Your task to perform on an android device: Open the web browser Image 0: 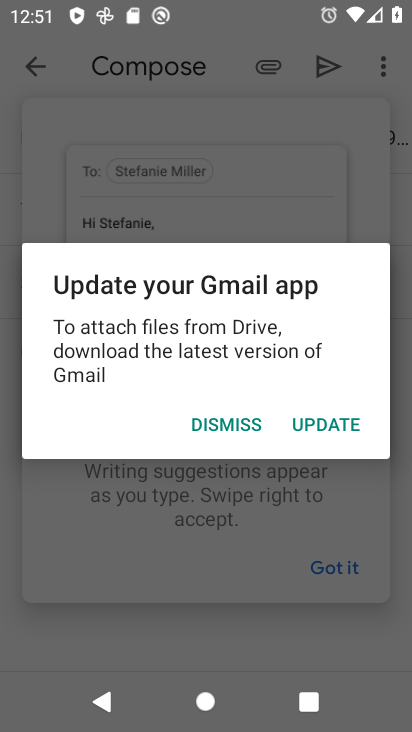
Step 0: press home button
Your task to perform on an android device: Open the web browser Image 1: 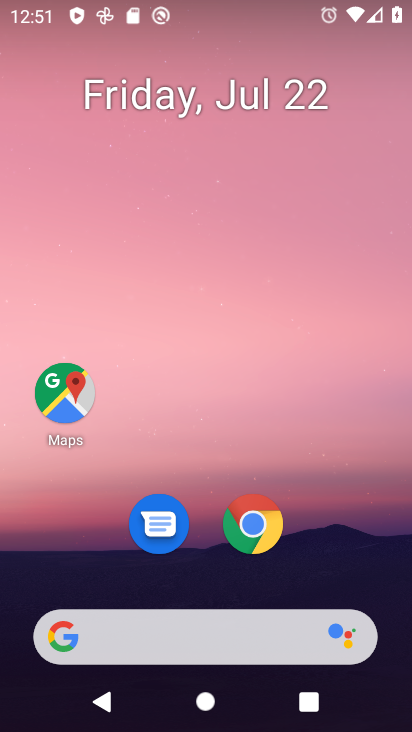
Step 1: click (261, 521)
Your task to perform on an android device: Open the web browser Image 2: 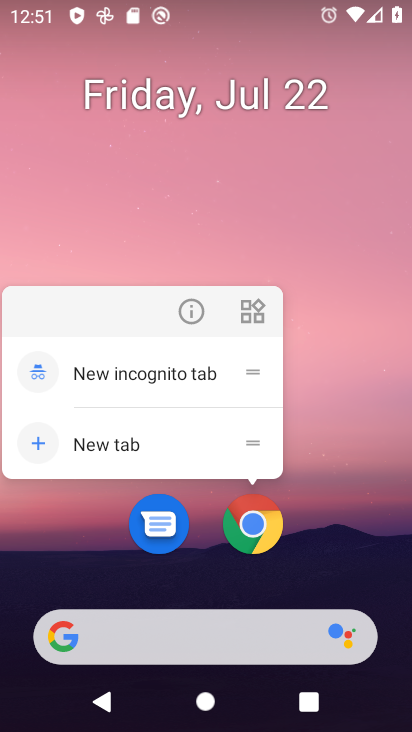
Step 2: click (261, 520)
Your task to perform on an android device: Open the web browser Image 3: 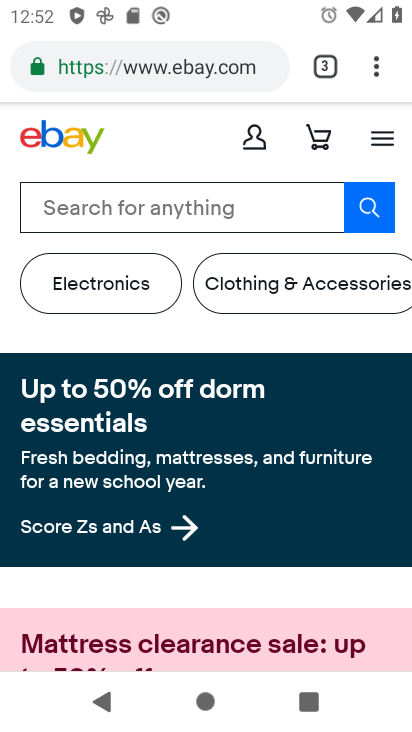
Step 3: task complete